Your task to perform on an android device: turn off location history Image 0: 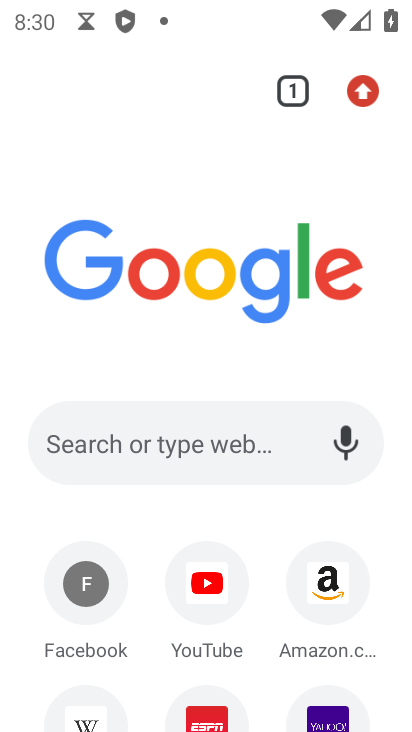
Step 0: press home button
Your task to perform on an android device: turn off location history Image 1: 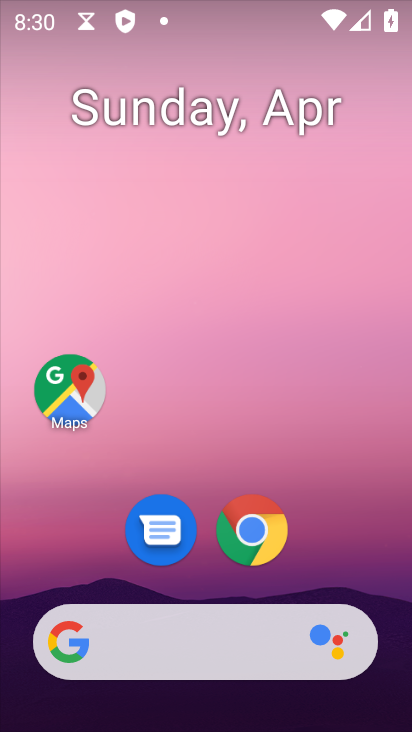
Step 1: drag from (201, 522) to (256, 38)
Your task to perform on an android device: turn off location history Image 2: 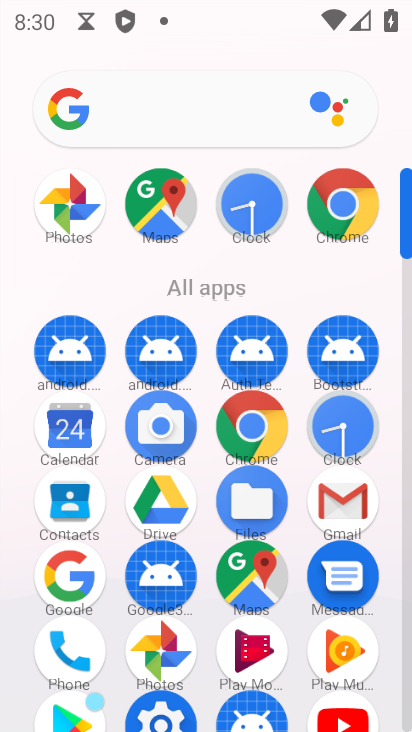
Step 2: click (163, 706)
Your task to perform on an android device: turn off location history Image 3: 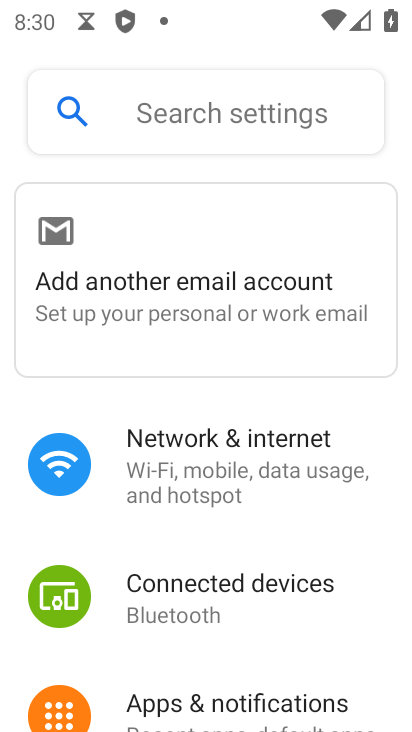
Step 3: drag from (193, 654) to (249, 22)
Your task to perform on an android device: turn off location history Image 4: 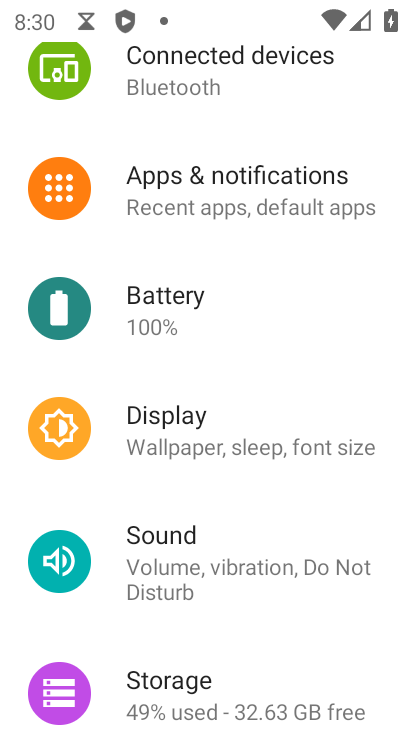
Step 4: drag from (225, 584) to (240, 208)
Your task to perform on an android device: turn off location history Image 5: 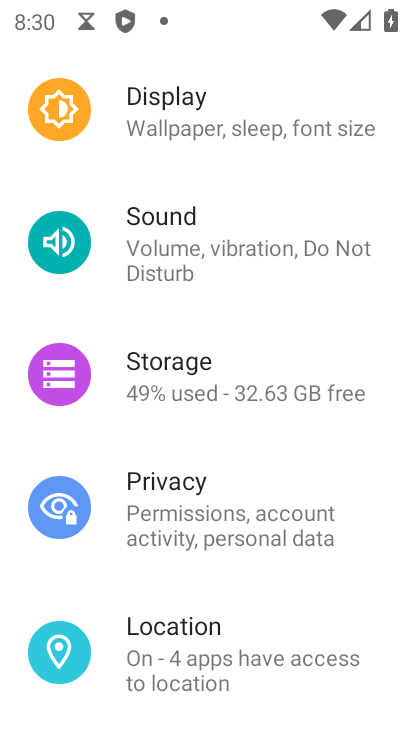
Step 5: click (216, 687)
Your task to perform on an android device: turn off location history Image 6: 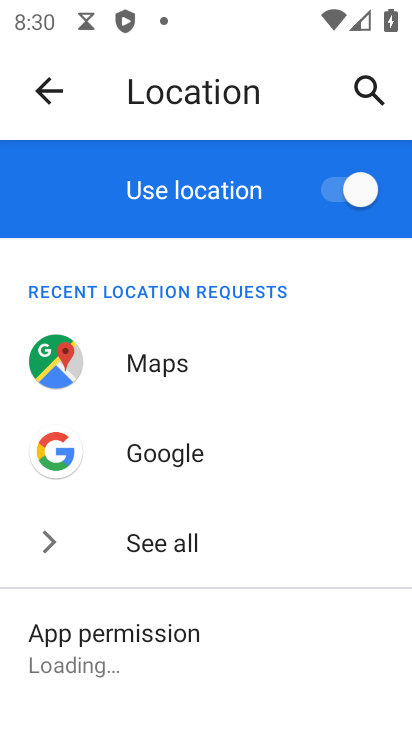
Step 6: drag from (219, 617) to (259, 140)
Your task to perform on an android device: turn off location history Image 7: 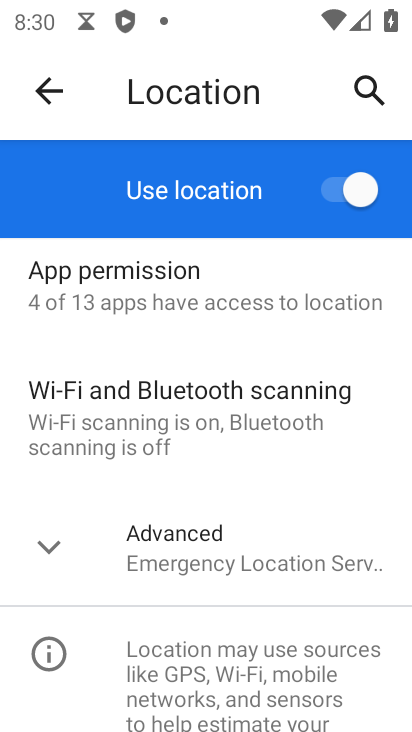
Step 7: click (217, 575)
Your task to perform on an android device: turn off location history Image 8: 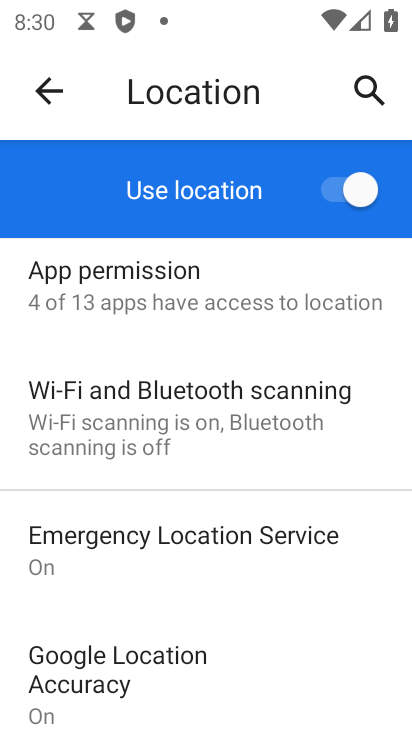
Step 8: drag from (236, 681) to (289, 315)
Your task to perform on an android device: turn off location history Image 9: 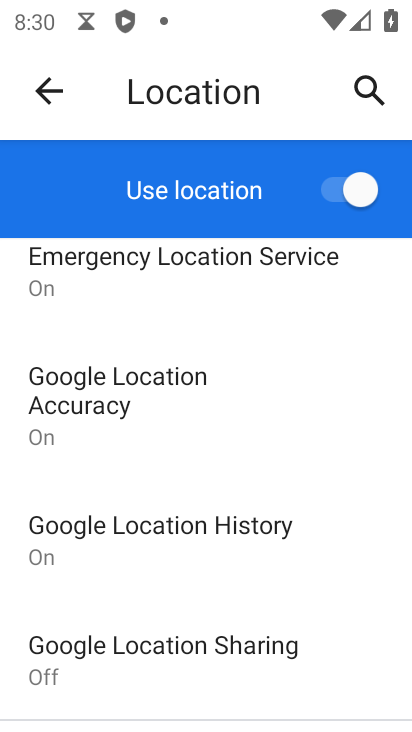
Step 9: click (187, 551)
Your task to perform on an android device: turn off location history Image 10: 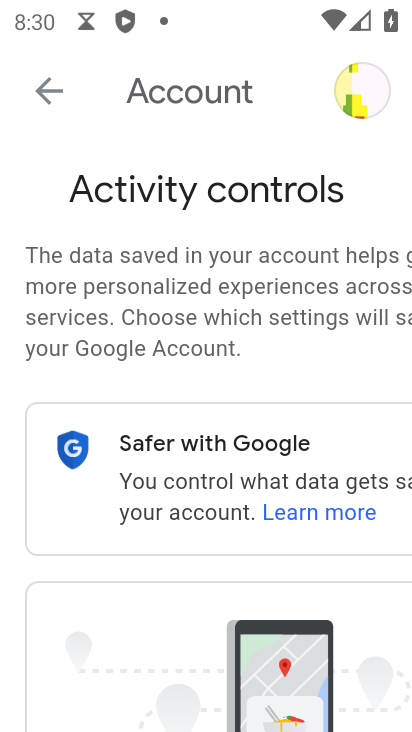
Step 10: drag from (205, 655) to (215, 213)
Your task to perform on an android device: turn off location history Image 11: 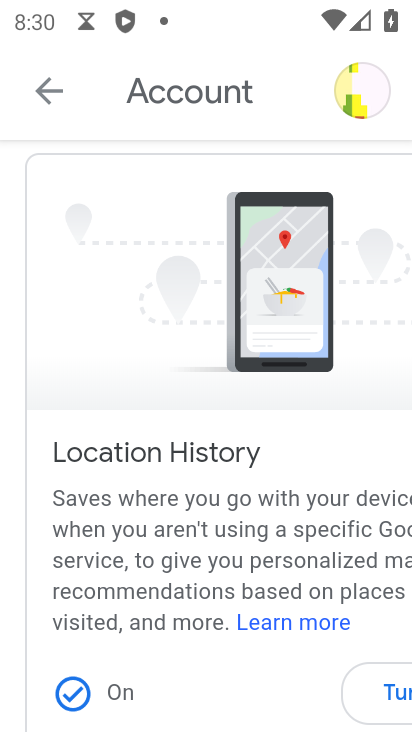
Step 11: click (378, 690)
Your task to perform on an android device: turn off location history Image 12: 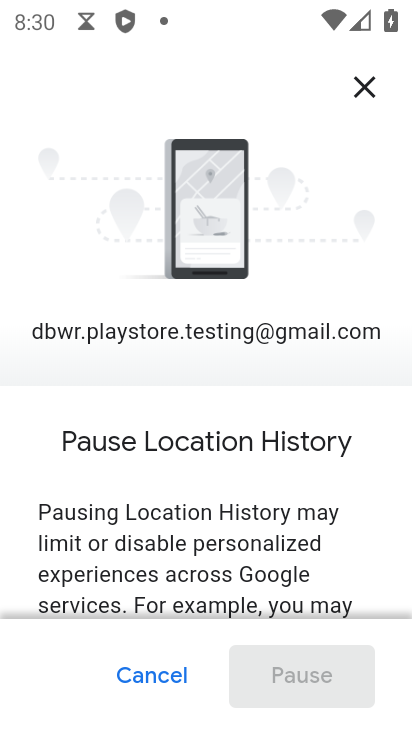
Step 12: drag from (226, 519) to (289, 107)
Your task to perform on an android device: turn off location history Image 13: 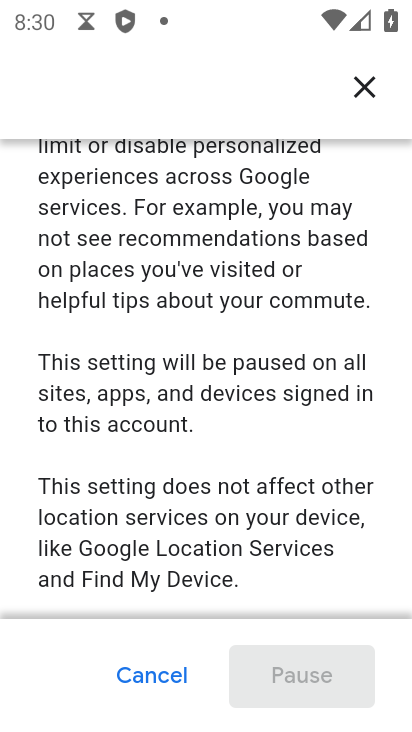
Step 13: drag from (256, 542) to (274, 234)
Your task to perform on an android device: turn off location history Image 14: 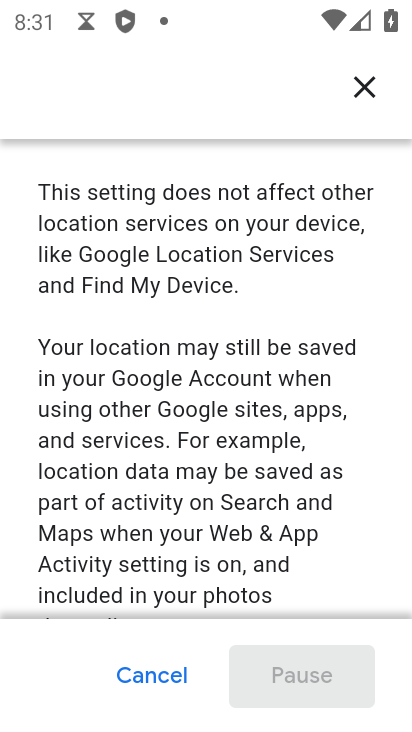
Step 14: drag from (229, 564) to (263, 173)
Your task to perform on an android device: turn off location history Image 15: 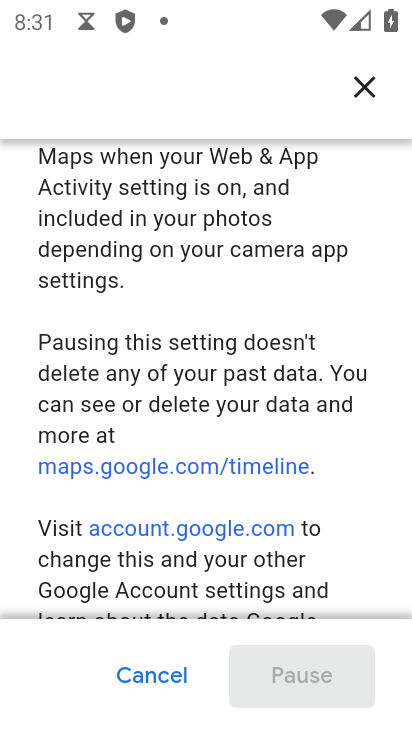
Step 15: drag from (223, 583) to (281, 166)
Your task to perform on an android device: turn off location history Image 16: 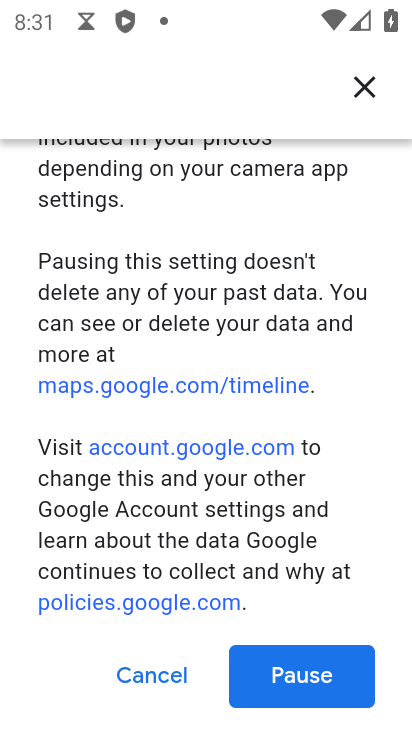
Step 16: click (276, 694)
Your task to perform on an android device: turn off location history Image 17: 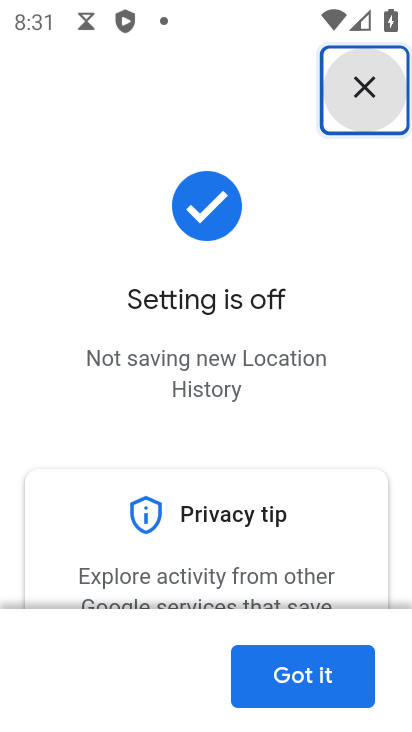
Step 17: task complete